Your task to perform on an android device: add a contact in the contacts app Image 0: 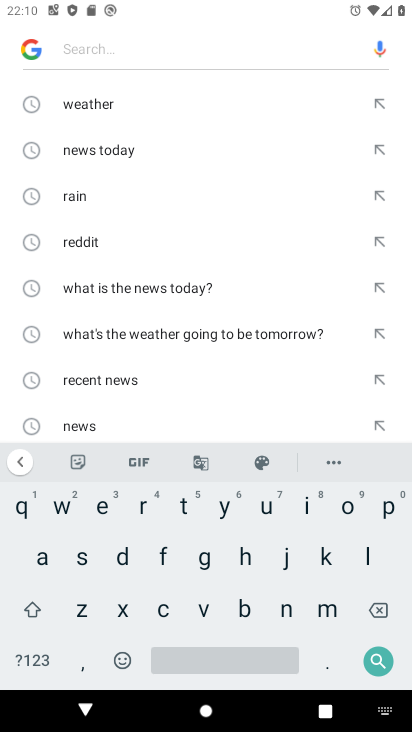
Step 0: press home button
Your task to perform on an android device: add a contact in the contacts app Image 1: 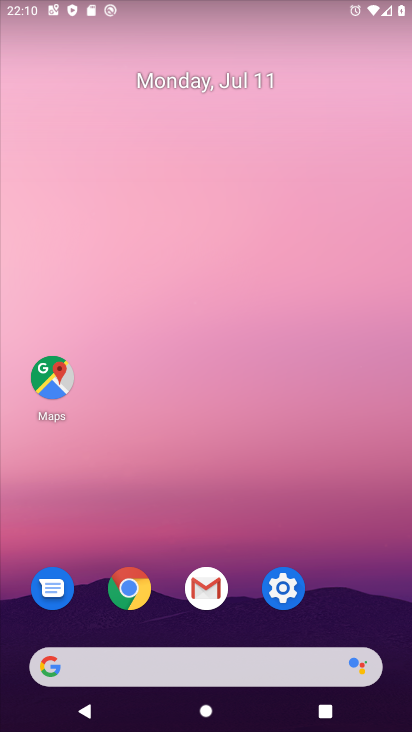
Step 1: drag from (272, 672) to (176, 274)
Your task to perform on an android device: add a contact in the contacts app Image 2: 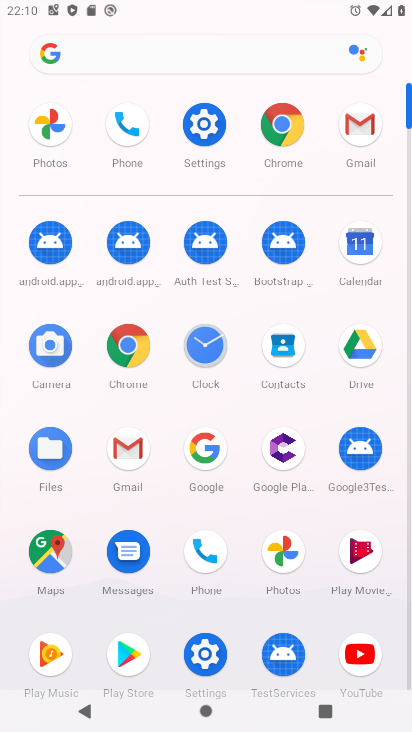
Step 2: click (120, 152)
Your task to perform on an android device: add a contact in the contacts app Image 3: 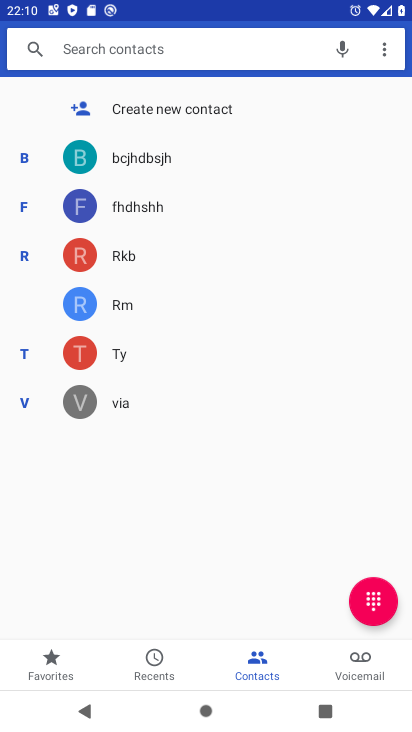
Step 3: click (148, 107)
Your task to perform on an android device: add a contact in the contacts app Image 4: 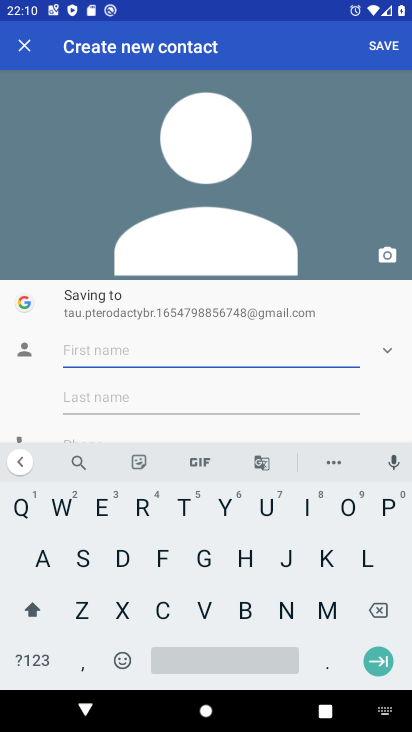
Step 4: click (169, 532)
Your task to perform on an android device: add a contact in the contacts app Image 5: 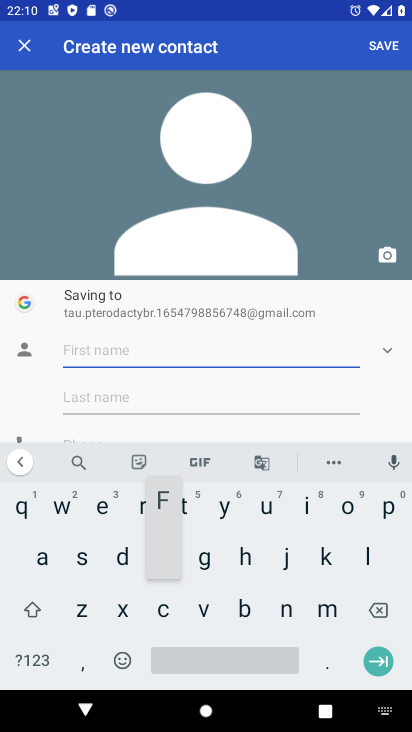
Step 5: click (207, 548)
Your task to perform on an android device: add a contact in the contacts app Image 6: 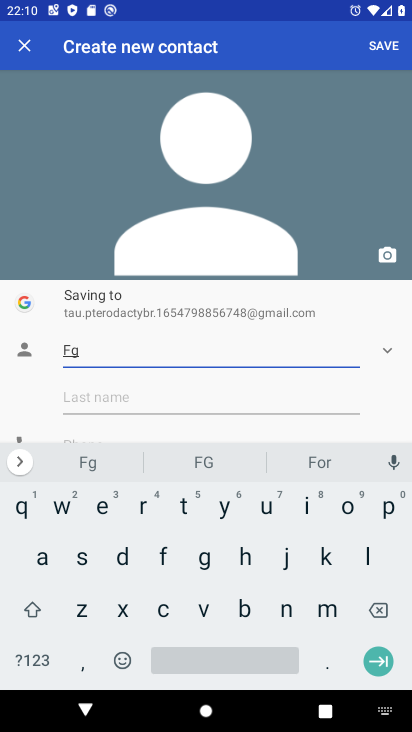
Step 6: click (136, 431)
Your task to perform on an android device: add a contact in the contacts app Image 7: 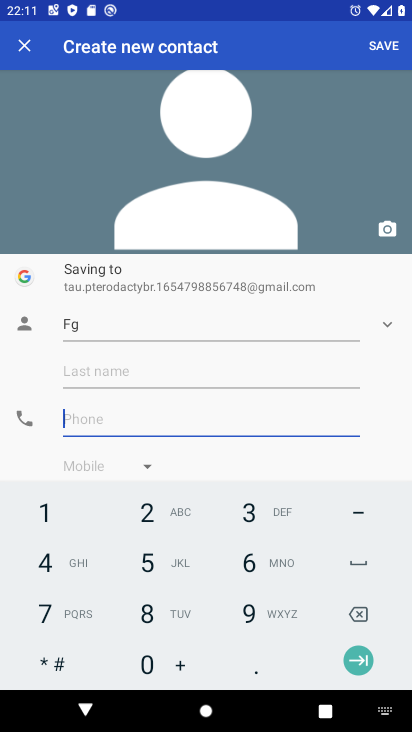
Step 7: click (136, 538)
Your task to perform on an android device: add a contact in the contacts app Image 8: 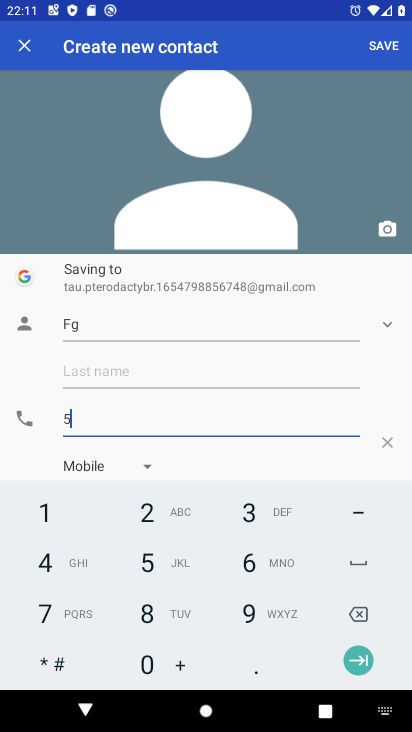
Step 8: click (143, 598)
Your task to perform on an android device: add a contact in the contacts app Image 9: 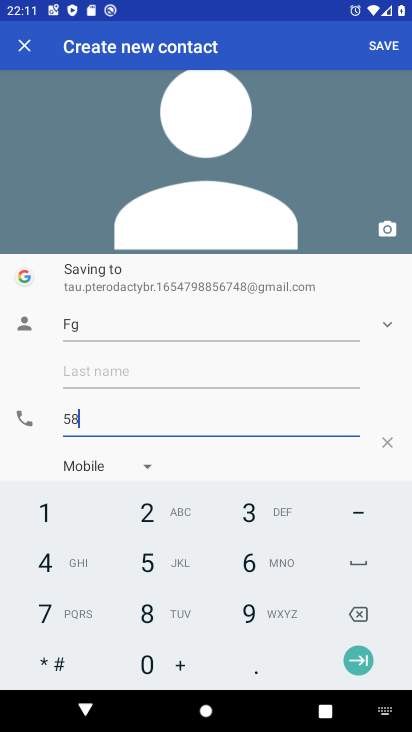
Step 9: click (53, 582)
Your task to perform on an android device: add a contact in the contacts app Image 10: 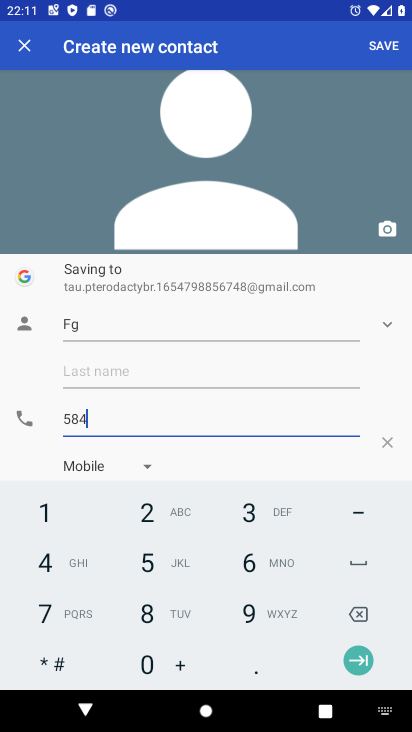
Step 10: click (46, 606)
Your task to perform on an android device: add a contact in the contacts app Image 11: 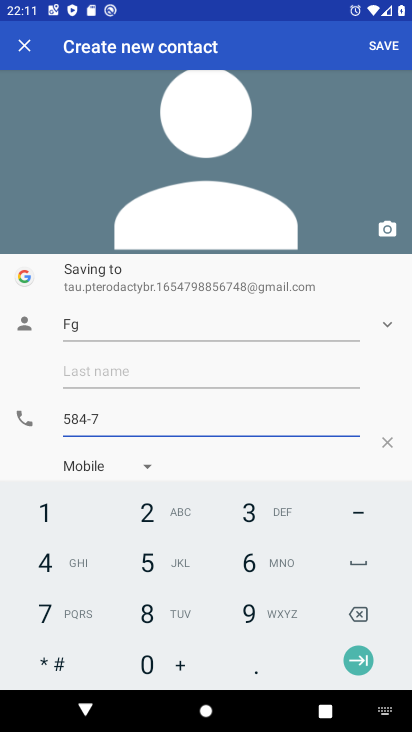
Step 11: click (377, 51)
Your task to perform on an android device: add a contact in the contacts app Image 12: 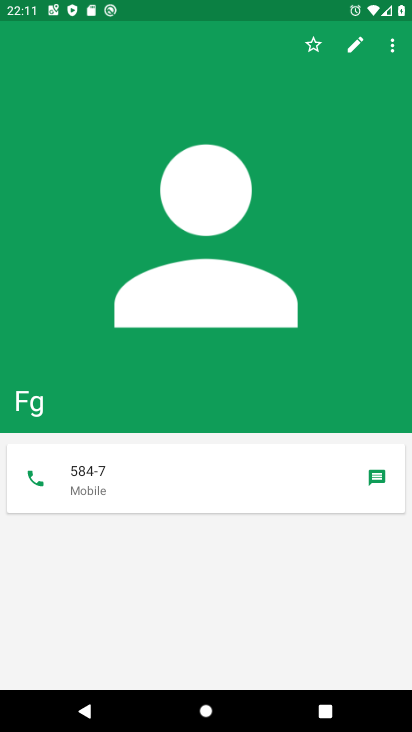
Step 12: task complete